Your task to perform on an android device: Install the Calendar app Image 0: 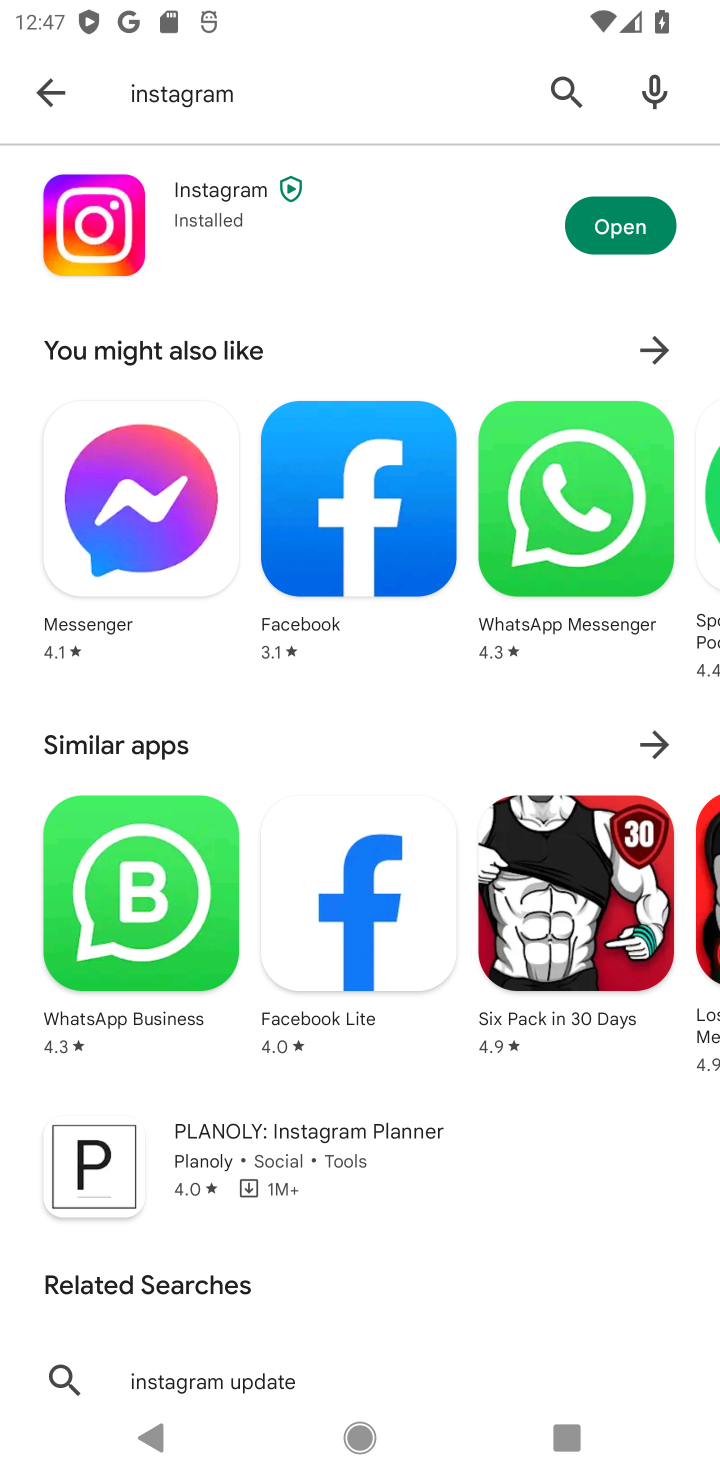
Step 0: press home button
Your task to perform on an android device: Install the Calendar app Image 1: 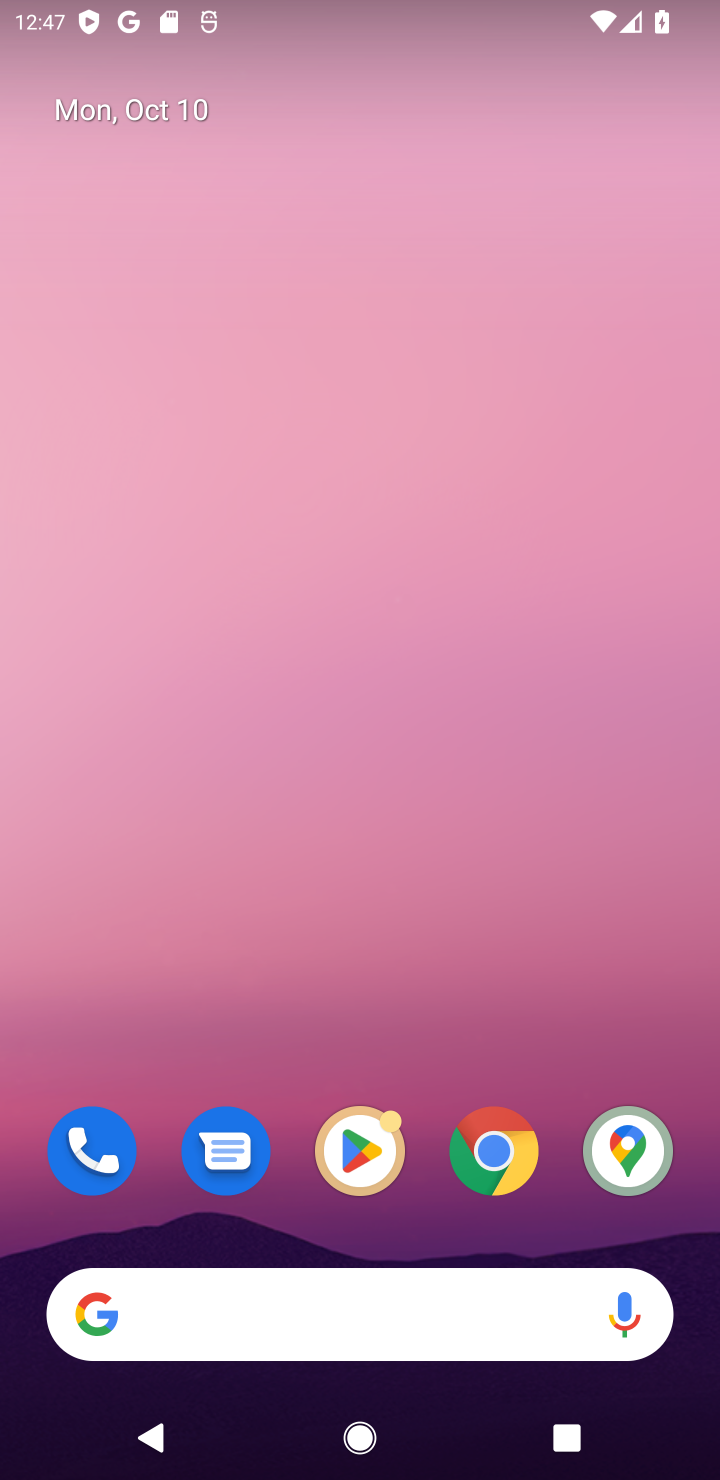
Step 1: click (357, 1158)
Your task to perform on an android device: Install the Calendar app Image 2: 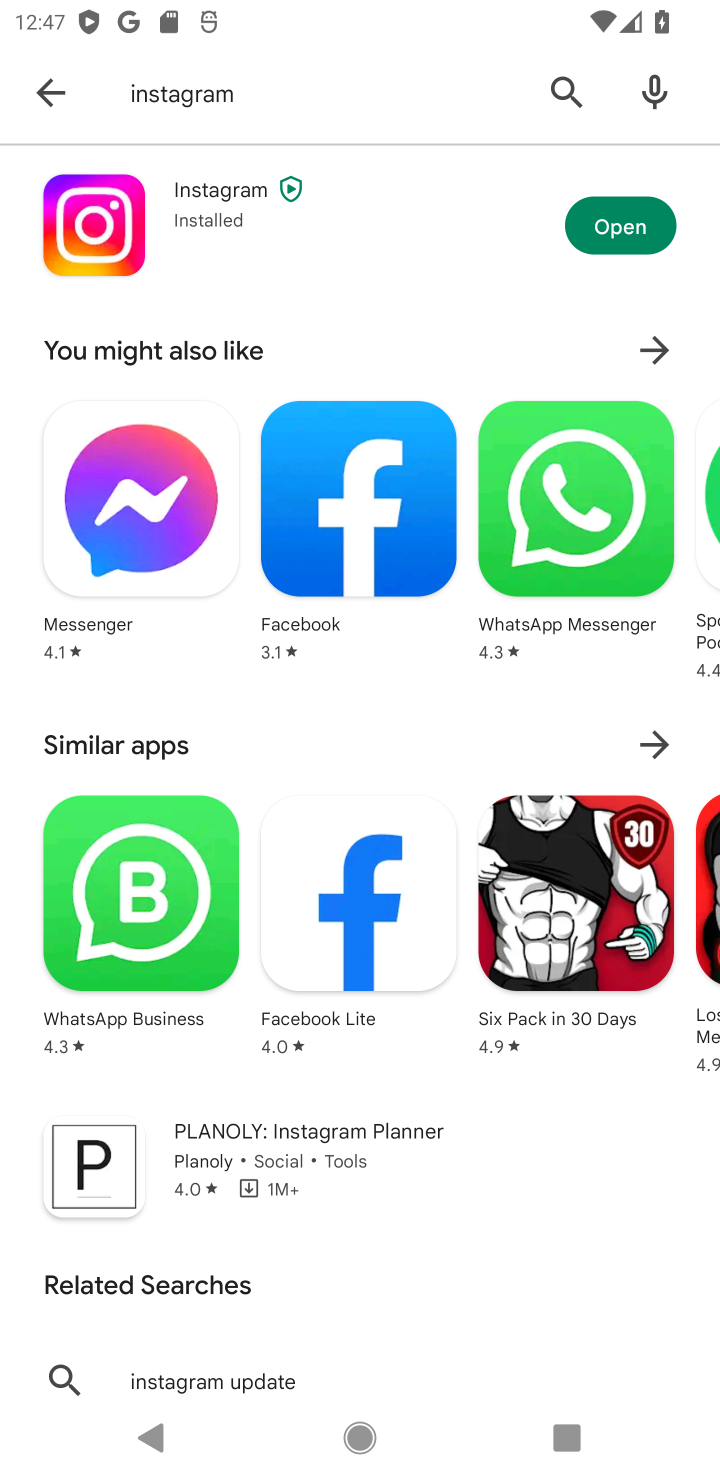
Step 2: click (43, 91)
Your task to perform on an android device: Install the Calendar app Image 3: 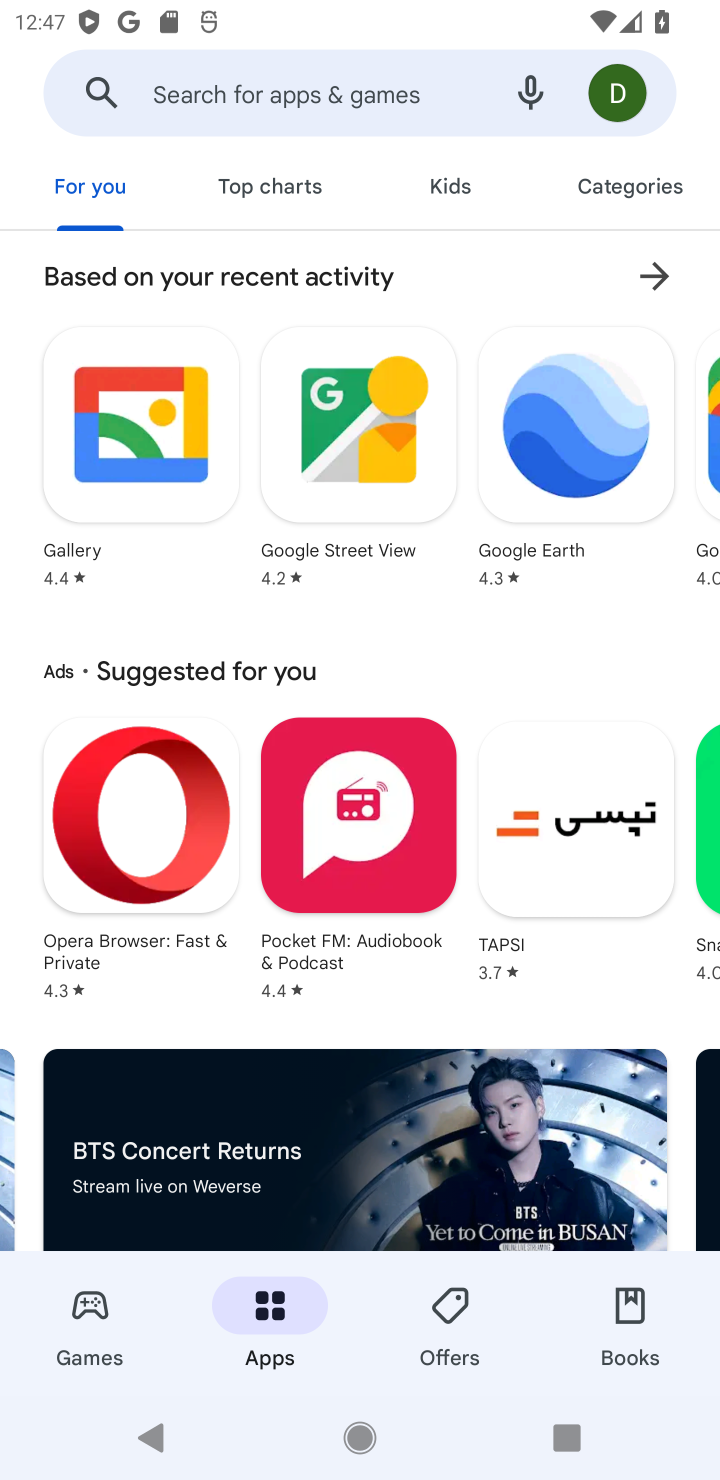
Step 3: click (177, 82)
Your task to perform on an android device: Install the Calendar app Image 4: 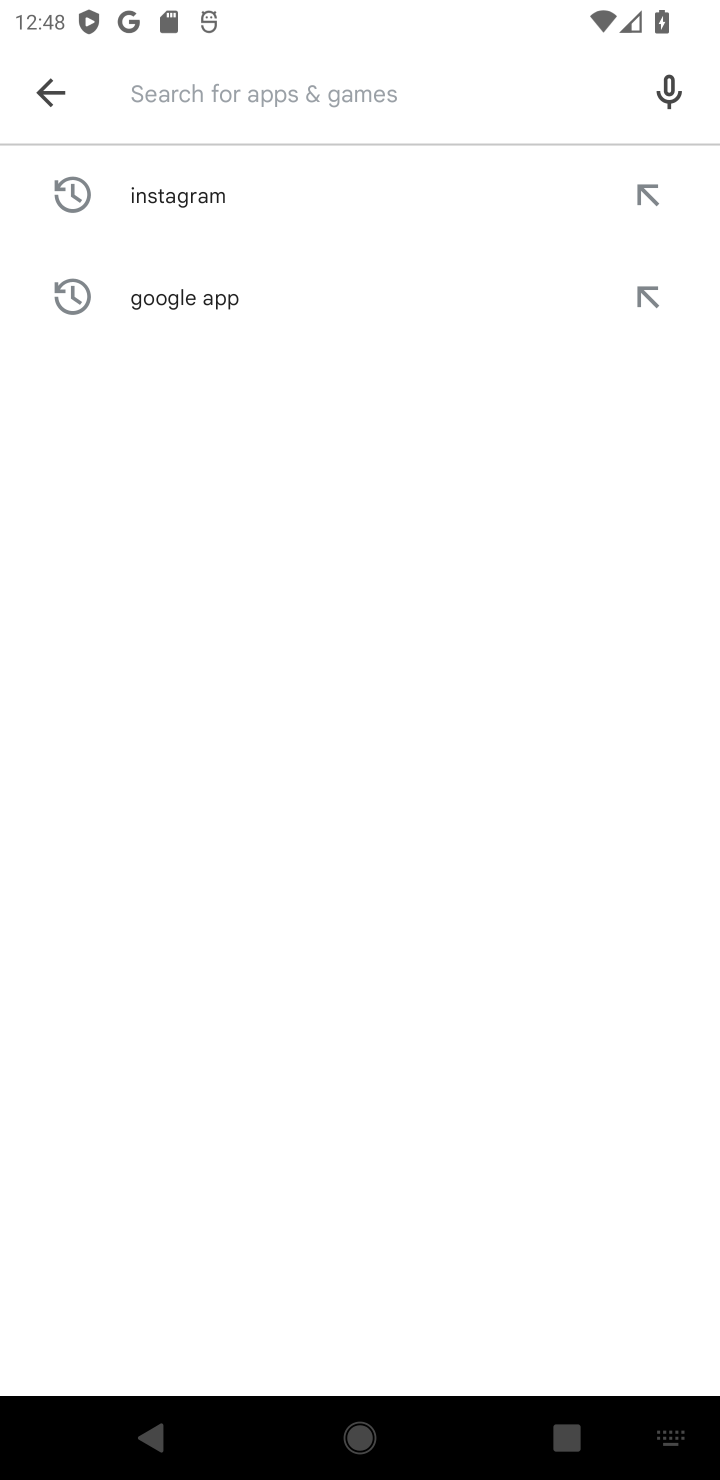
Step 4: type "calcalendar app"
Your task to perform on an android device: Install the Calendar app Image 5: 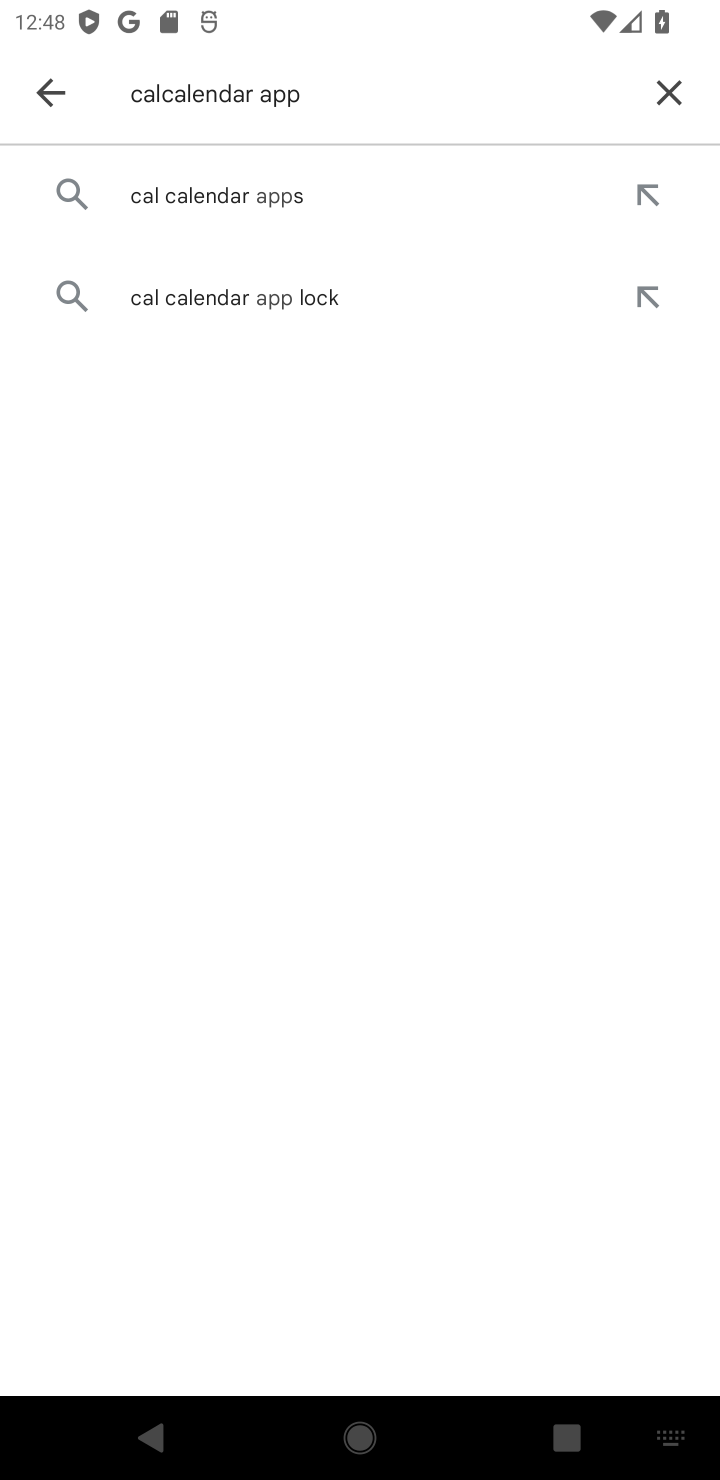
Step 5: click (179, 201)
Your task to perform on an android device: Install the Calendar app Image 6: 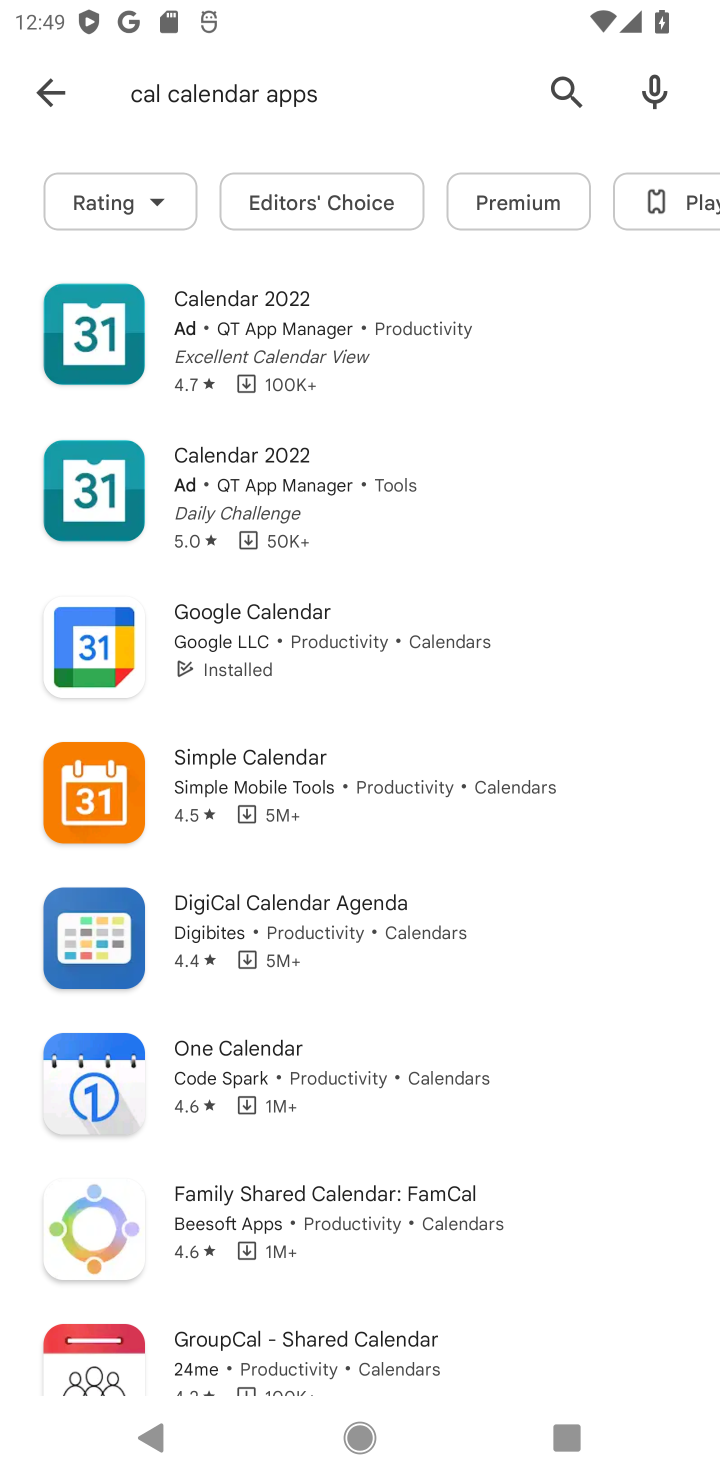
Step 6: click (227, 460)
Your task to perform on an android device: Install the Calendar app Image 7: 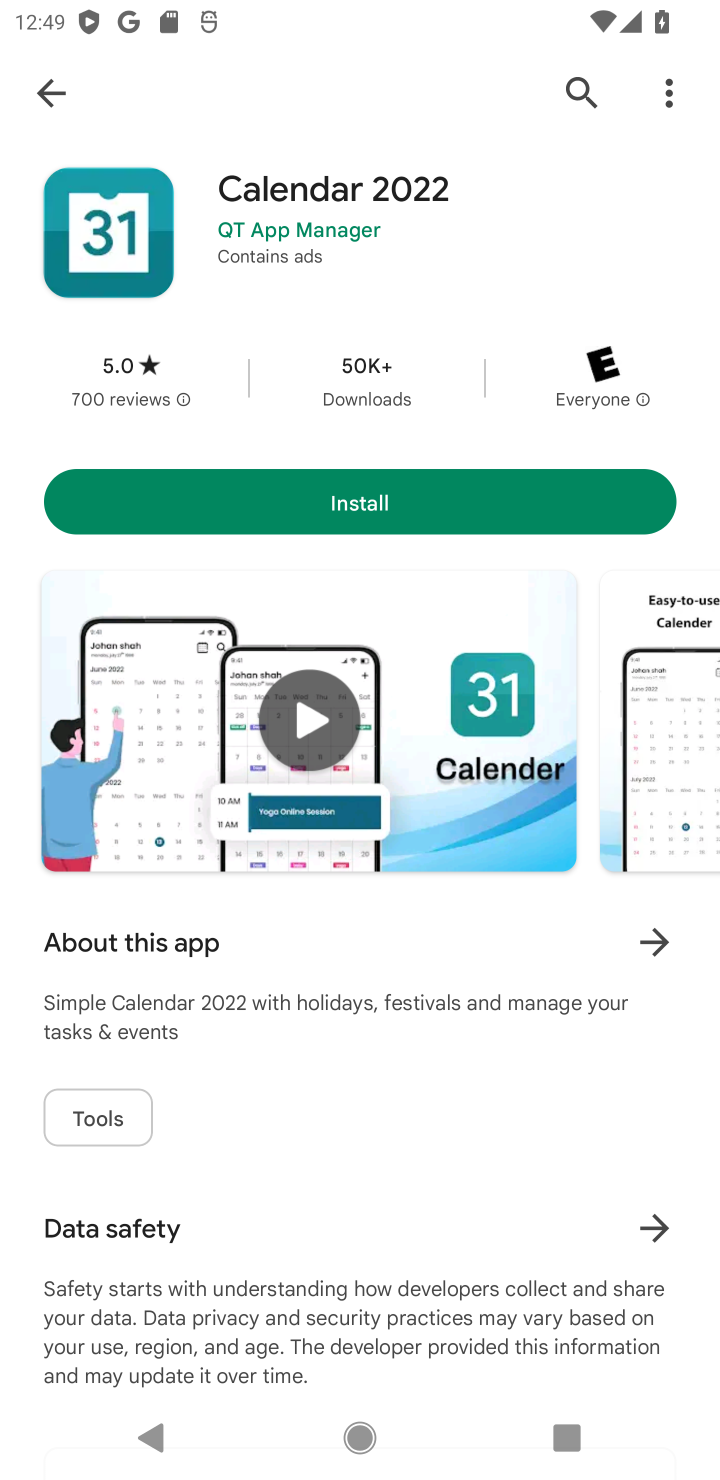
Step 7: click (360, 502)
Your task to perform on an android device: Install the Calendar app Image 8: 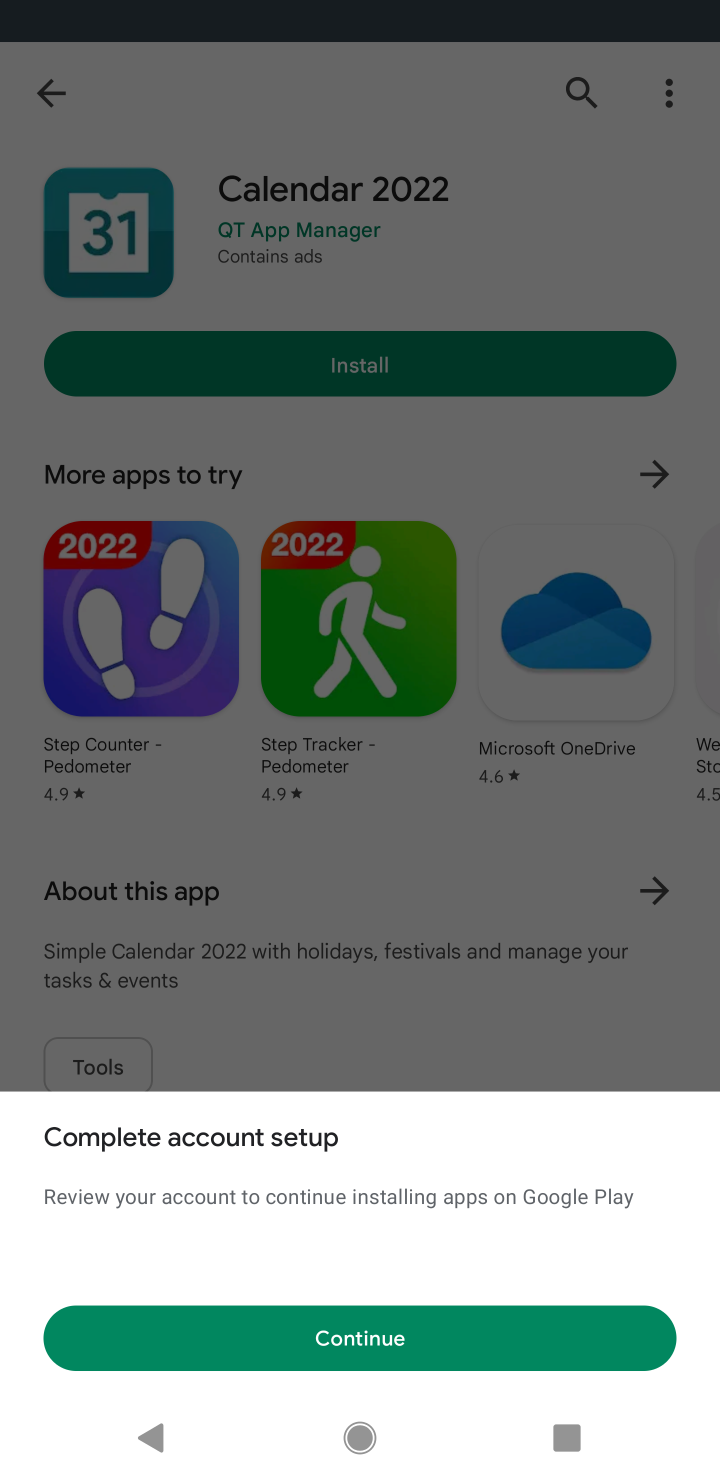
Step 8: click (253, 1339)
Your task to perform on an android device: Install the Calendar app Image 9: 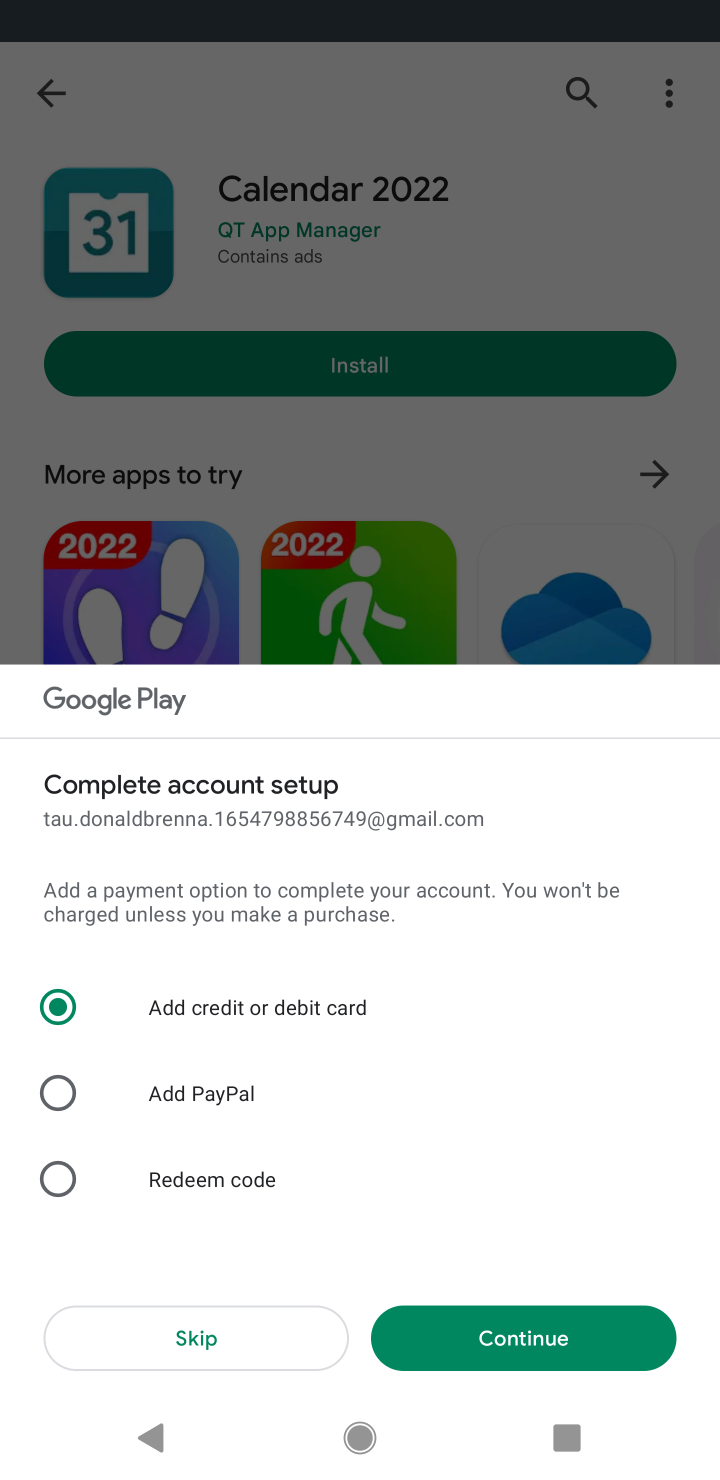
Step 9: click (217, 1339)
Your task to perform on an android device: Install the Calendar app Image 10: 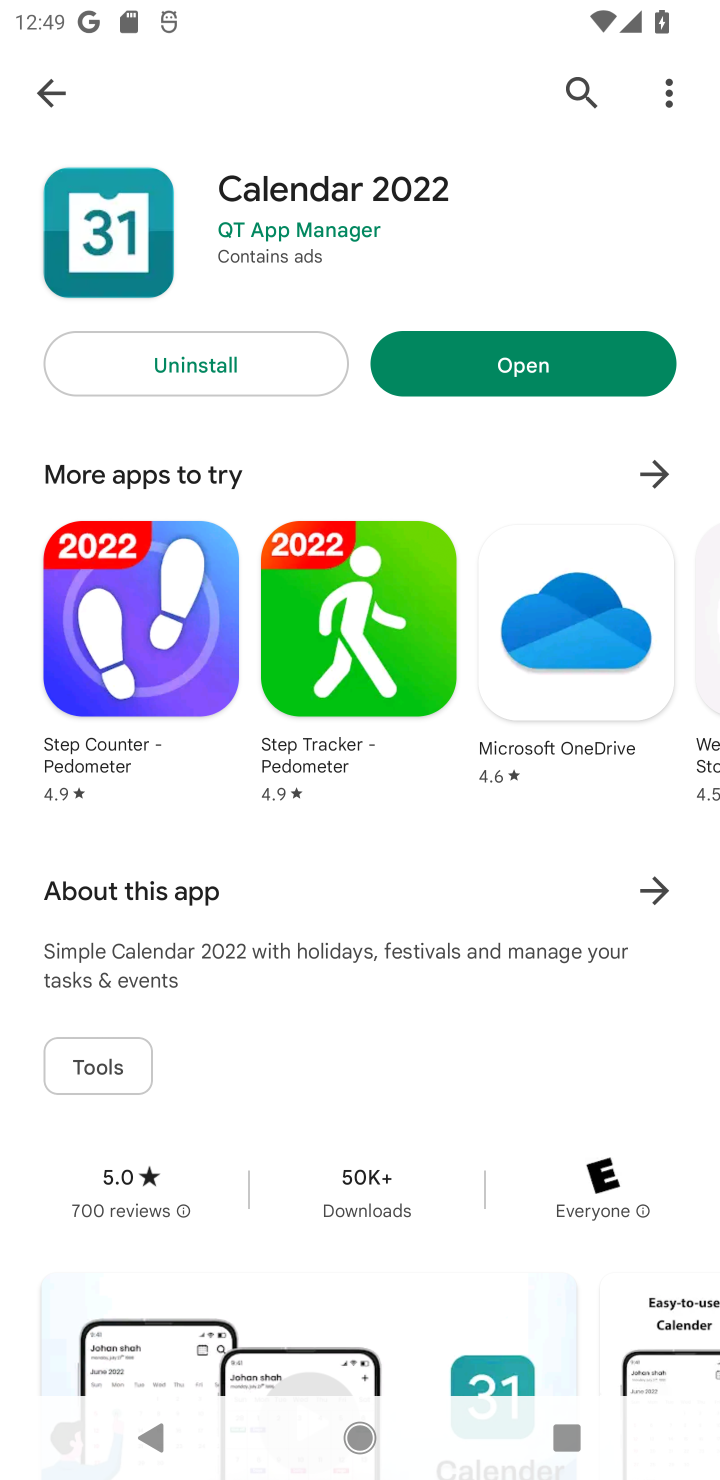
Step 10: task complete